Your task to perform on an android device: install app "LinkedIn" Image 0: 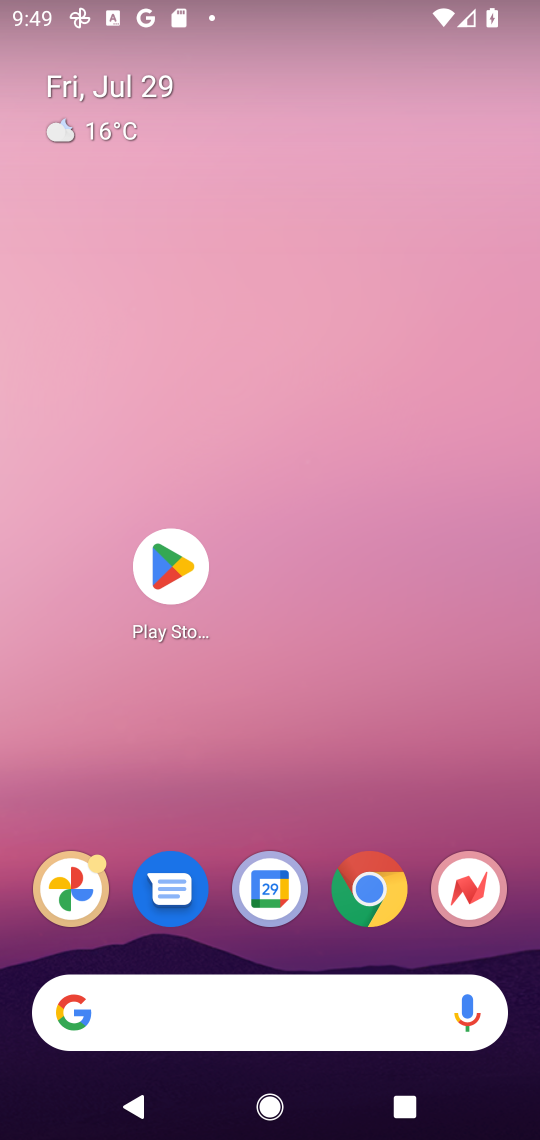
Step 0: click (164, 564)
Your task to perform on an android device: install app "LinkedIn" Image 1: 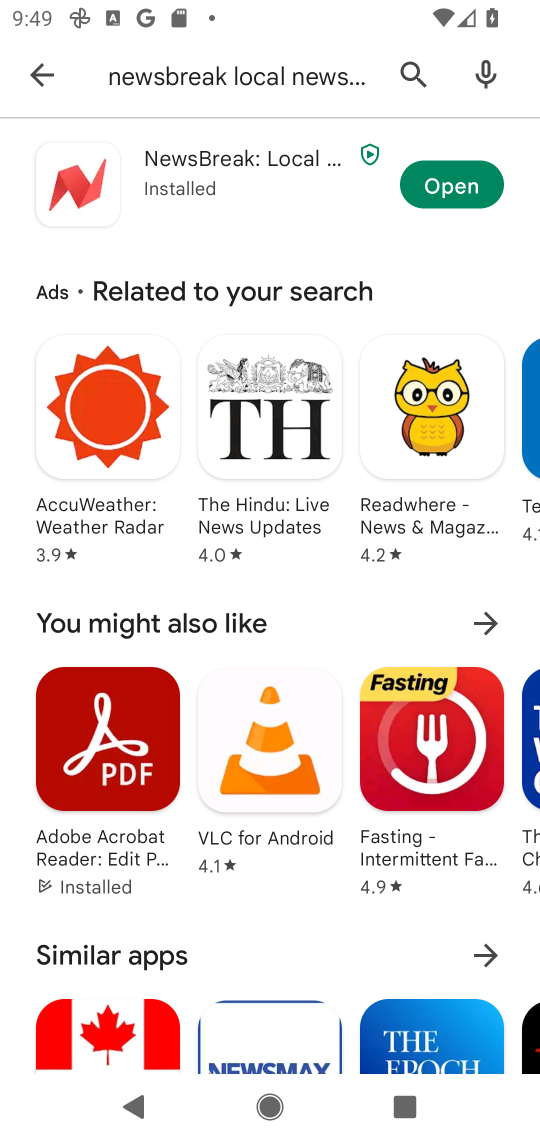
Step 1: click (408, 70)
Your task to perform on an android device: install app "LinkedIn" Image 2: 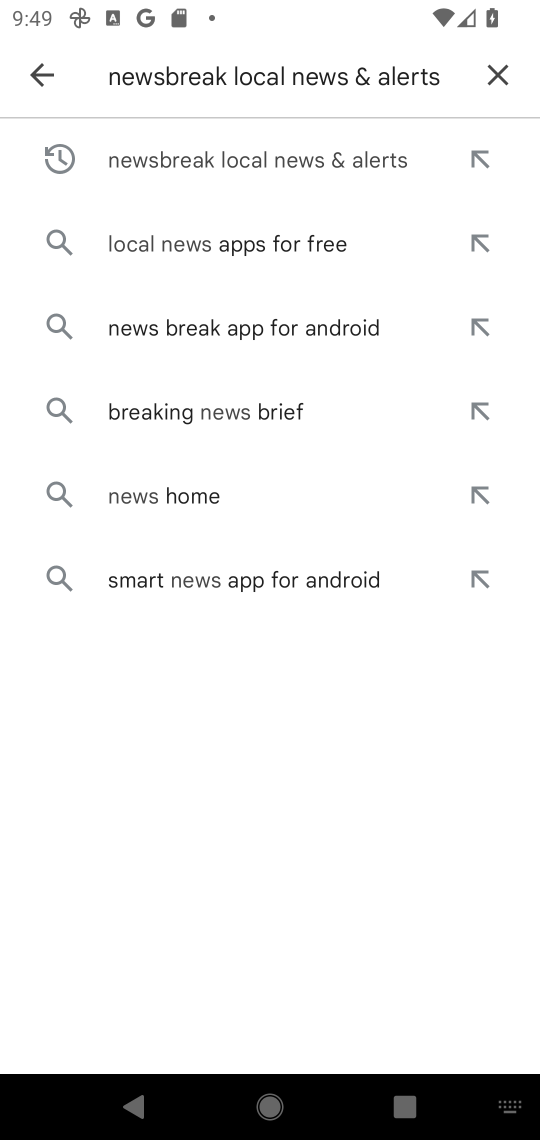
Step 2: click (497, 76)
Your task to perform on an android device: install app "LinkedIn" Image 3: 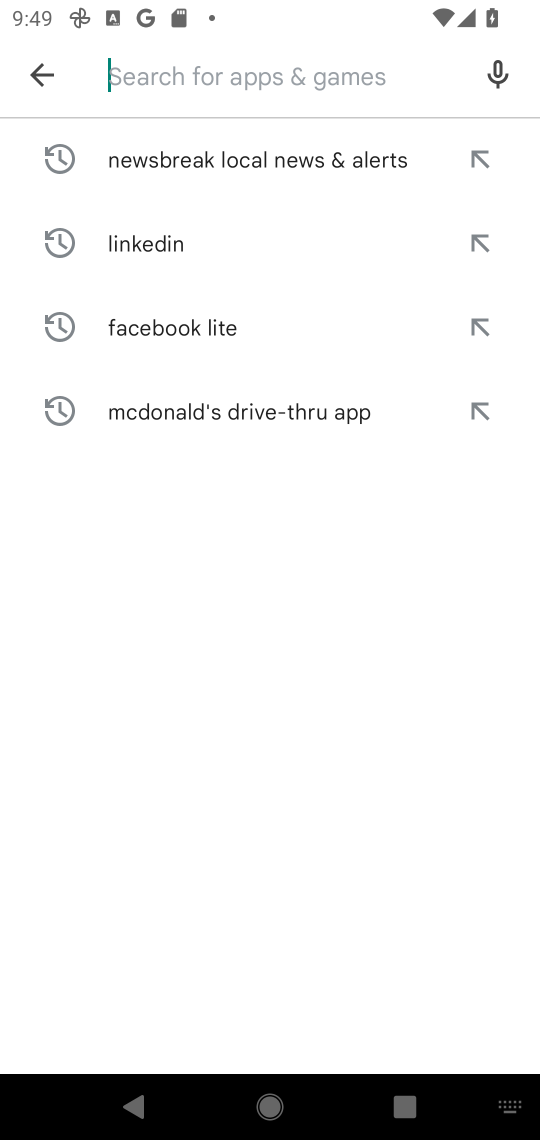
Step 3: type "LinkedIn"
Your task to perform on an android device: install app "LinkedIn" Image 4: 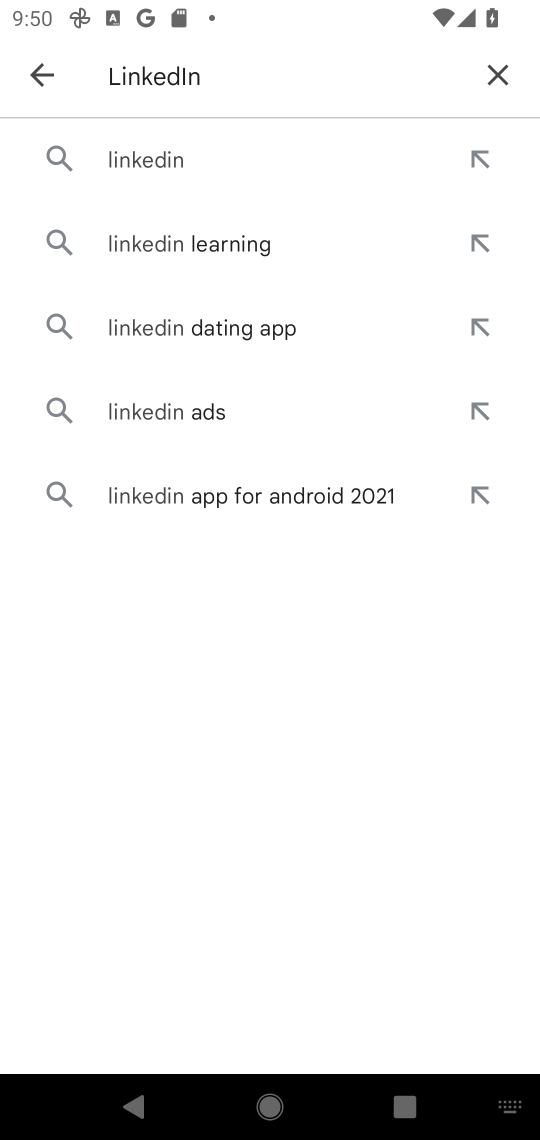
Step 4: click (165, 160)
Your task to perform on an android device: install app "LinkedIn" Image 5: 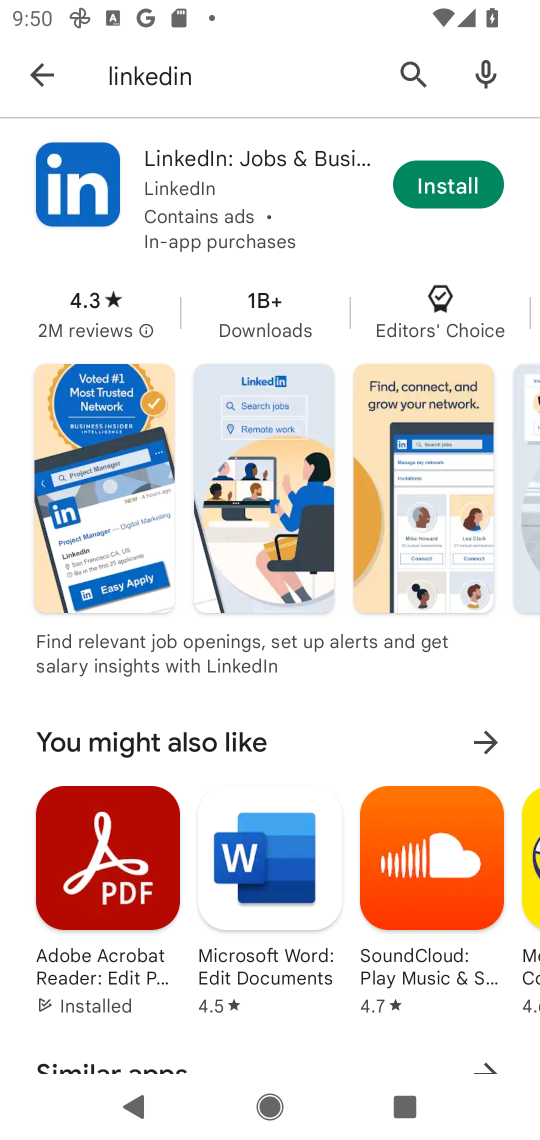
Step 5: click (441, 169)
Your task to perform on an android device: install app "LinkedIn" Image 6: 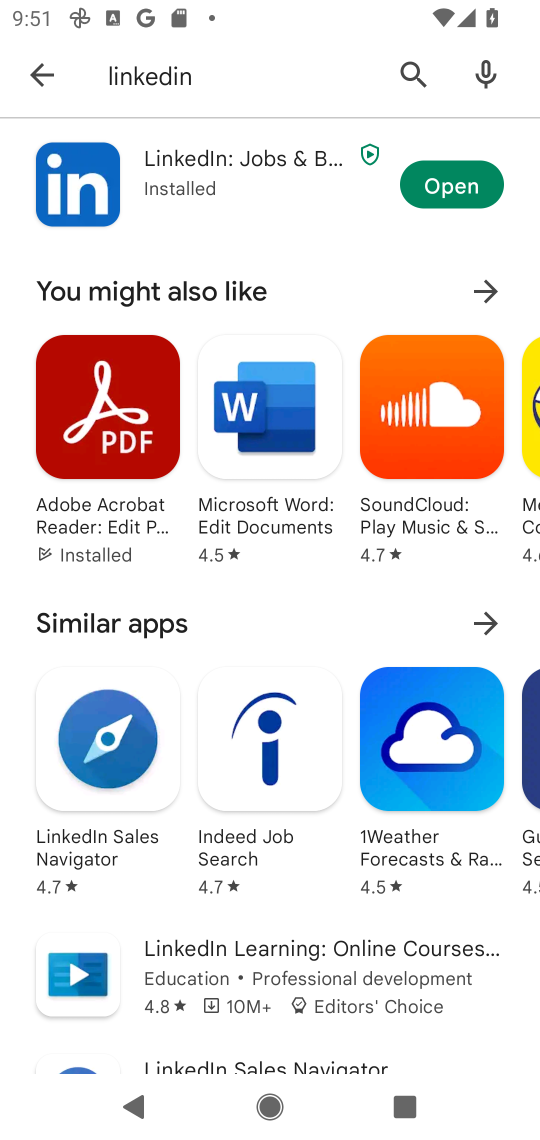
Step 6: task complete